Your task to perform on an android device: Do I have any events tomorrow? Image 0: 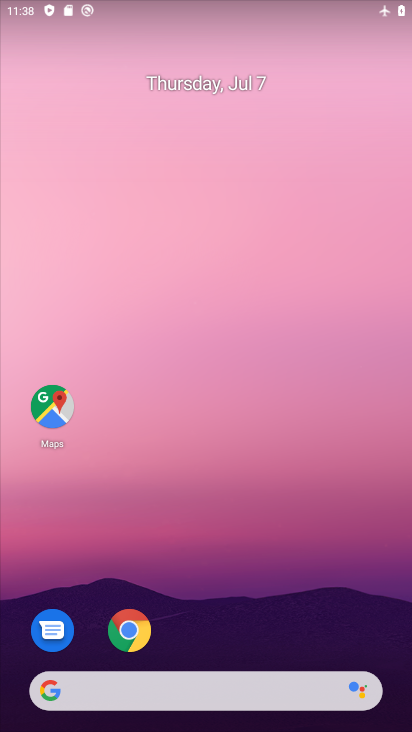
Step 0: drag from (386, 657) to (262, 21)
Your task to perform on an android device: Do I have any events tomorrow? Image 1: 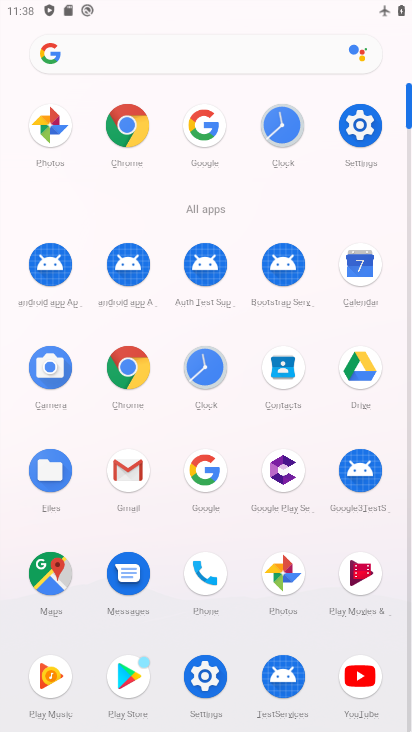
Step 1: click (357, 269)
Your task to perform on an android device: Do I have any events tomorrow? Image 2: 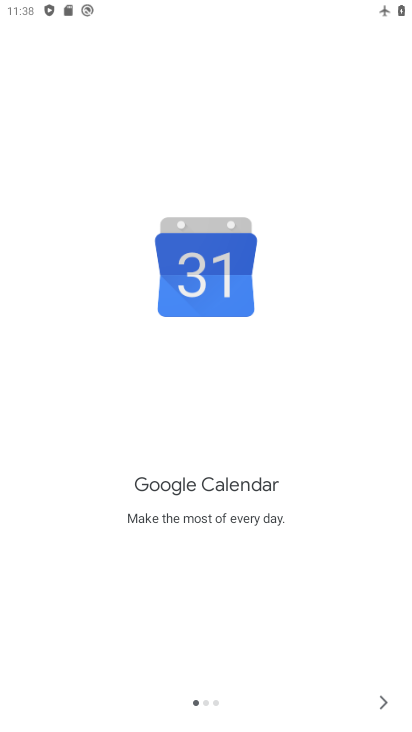
Step 2: click (394, 710)
Your task to perform on an android device: Do I have any events tomorrow? Image 3: 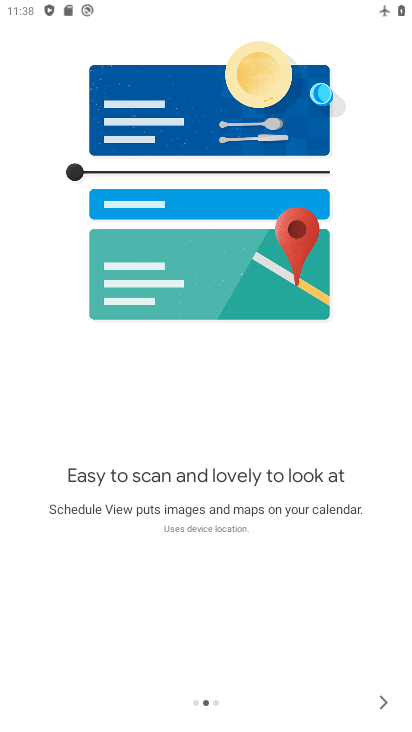
Step 3: click (394, 710)
Your task to perform on an android device: Do I have any events tomorrow? Image 4: 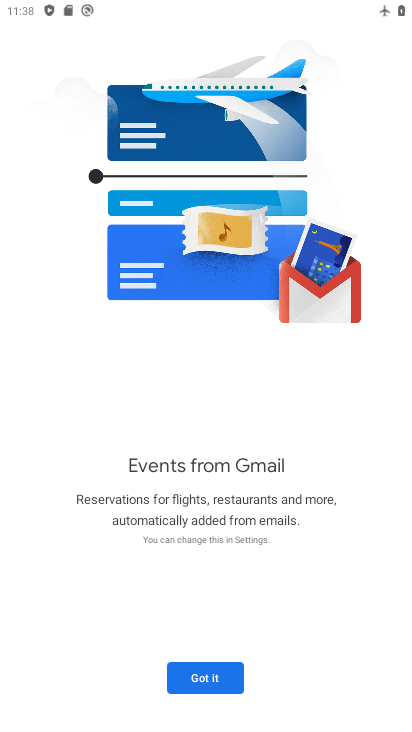
Step 4: click (394, 710)
Your task to perform on an android device: Do I have any events tomorrow? Image 5: 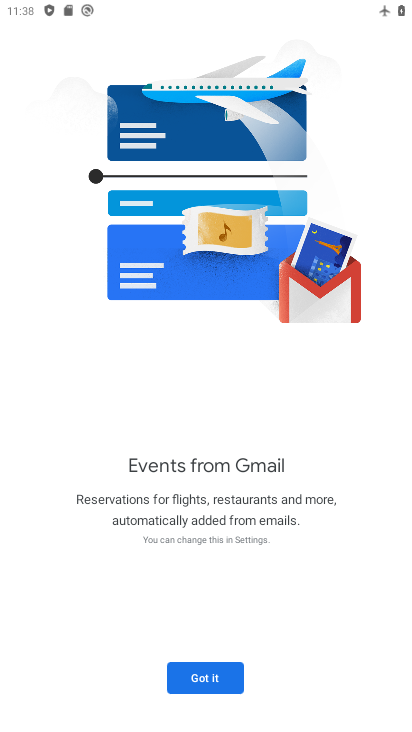
Step 5: click (193, 686)
Your task to perform on an android device: Do I have any events tomorrow? Image 6: 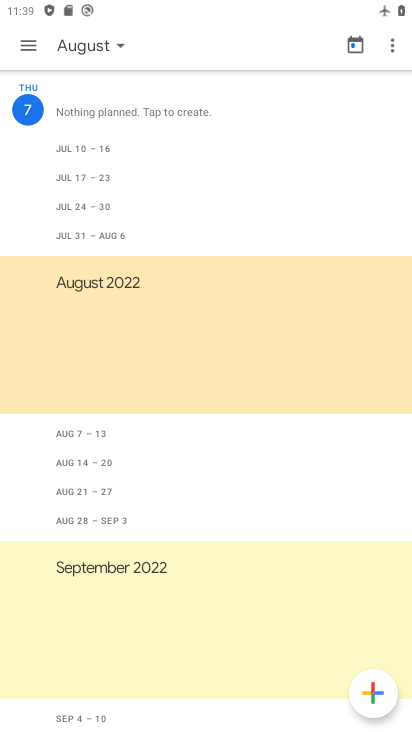
Step 6: task complete